Your task to perform on an android device: Clear the shopping cart on walmart. Add razer nari to the cart on walmart Image 0: 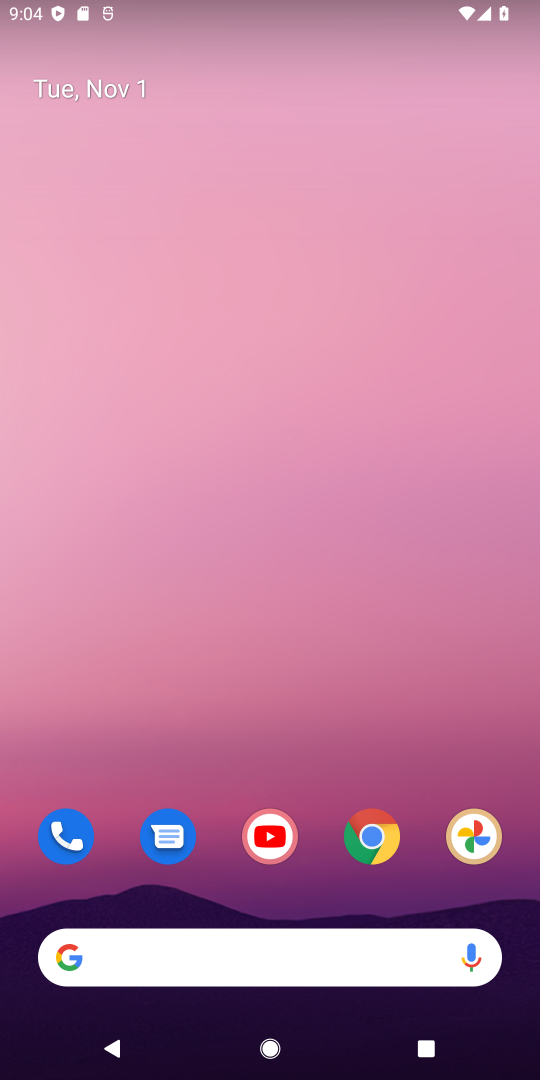
Step 0: click (373, 841)
Your task to perform on an android device: Clear the shopping cart on walmart. Add razer nari to the cart on walmart Image 1: 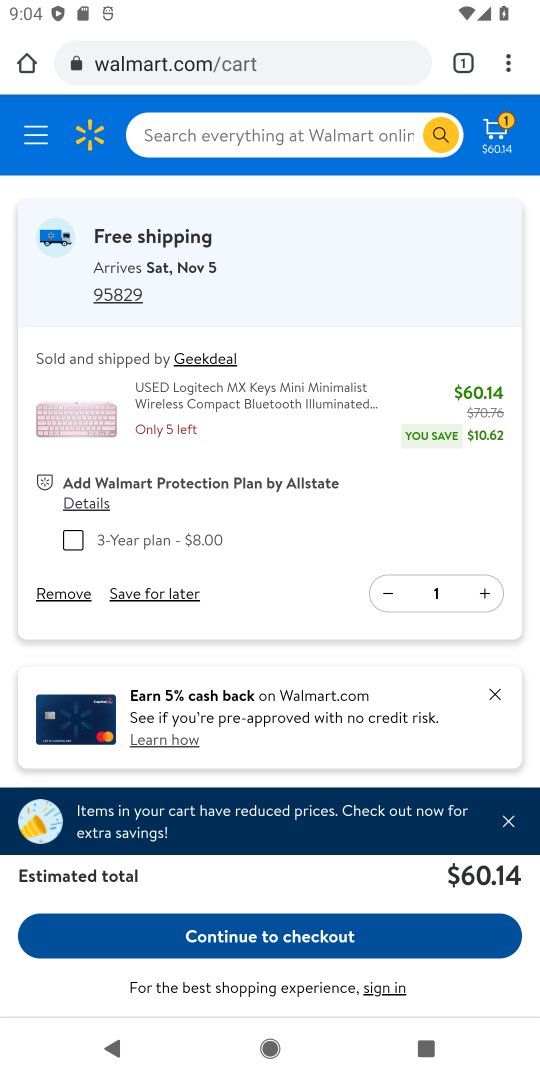
Step 1: click (202, 75)
Your task to perform on an android device: Clear the shopping cart on walmart. Add razer nari to the cart on walmart Image 2: 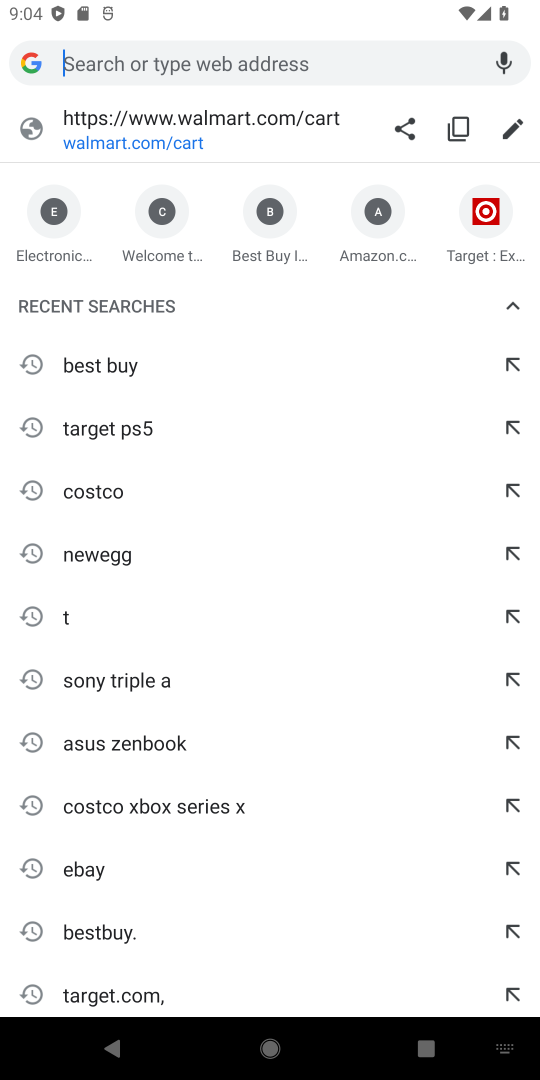
Step 2: type "walmart"
Your task to perform on an android device: Clear the shopping cart on walmart. Add razer nari to the cart on walmart Image 3: 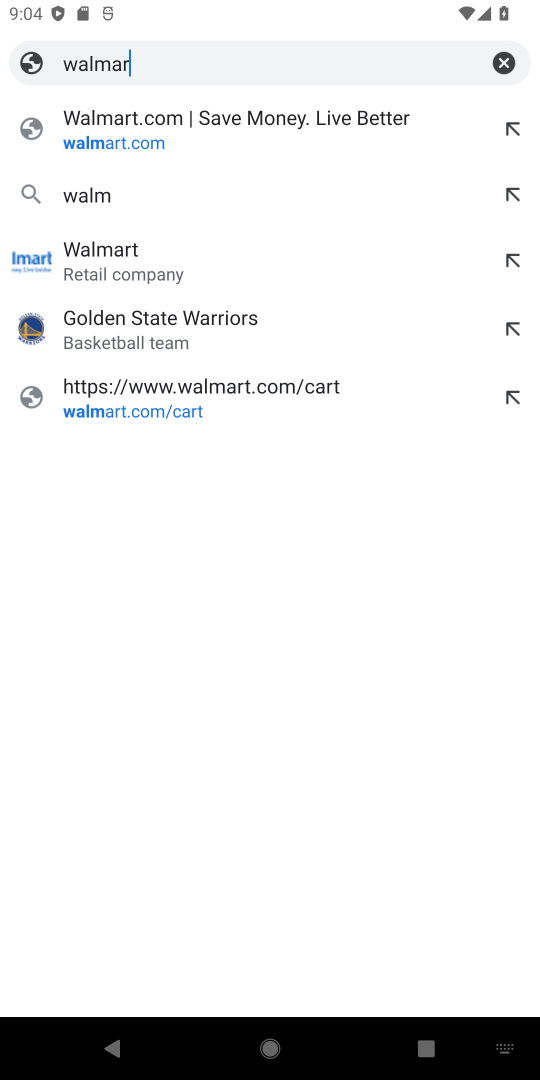
Step 3: type ""
Your task to perform on an android device: Clear the shopping cart on walmart. Add razer nari to the cart on walmart Image 4: 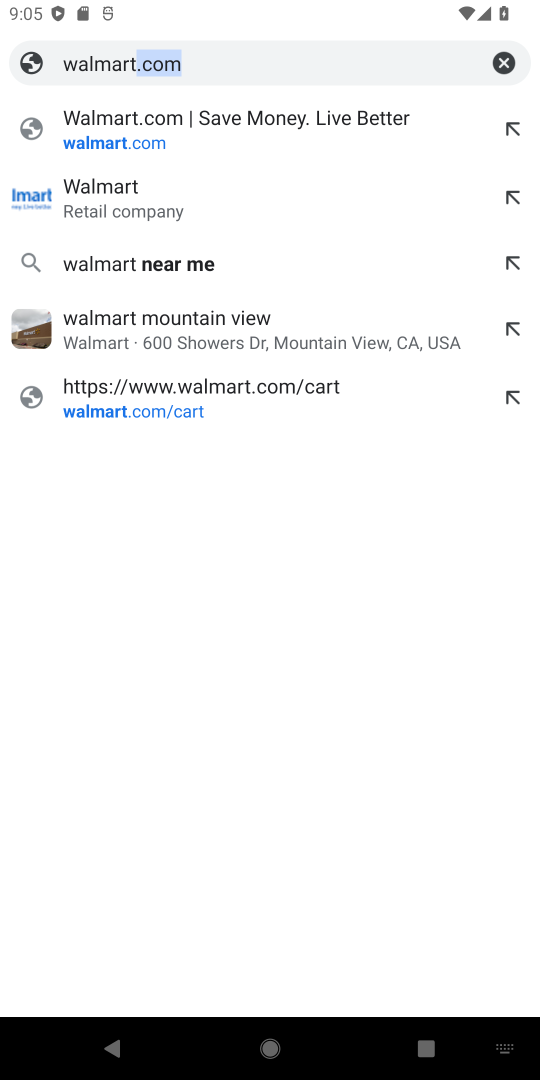
Step 4: press enter
Your task to perform on an android device: Clear the shopping cart on walmart. Add razer nari to the cart on walmart Image 5: 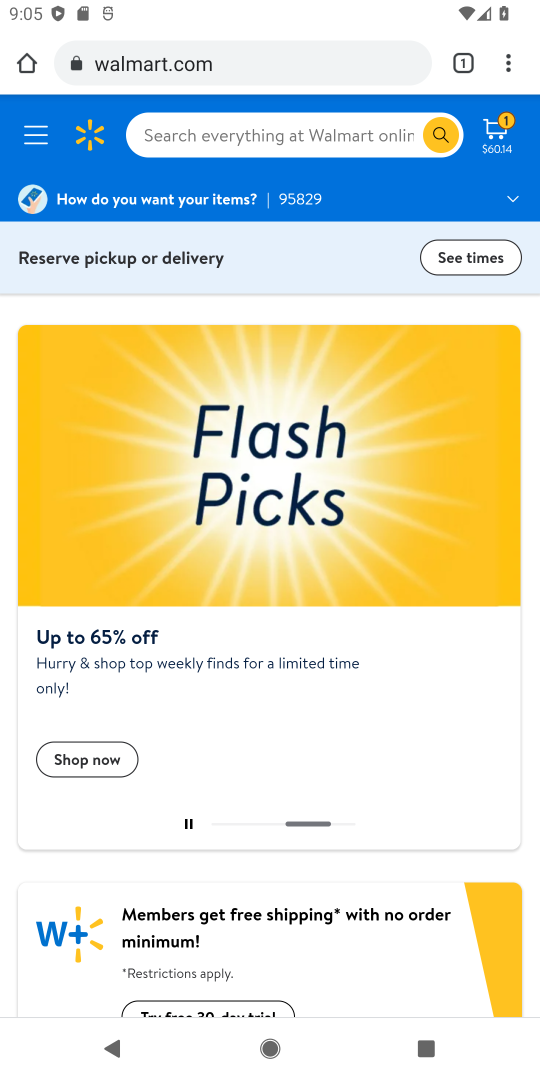
Step 5: click (258, 122)
Your task to perform on an android device: Clear the shopping cart on walmart. Add razer nari to the cart on walmart Image 6: 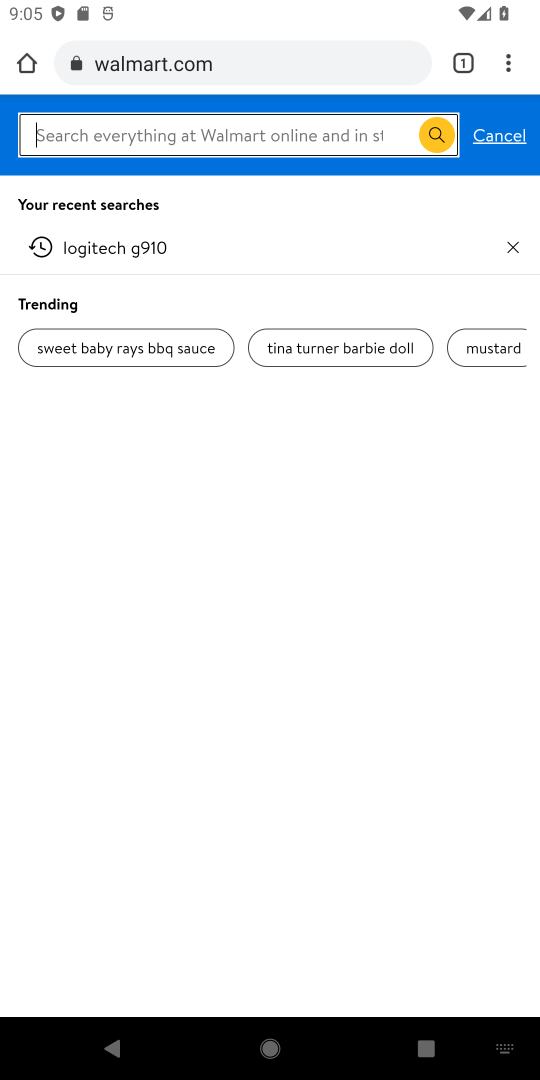
Step 6: type "razer nari "
Your task to perform on an android device: Clear the shopping cart on walmart. Add razer nari to the cart on walmart Image 7: 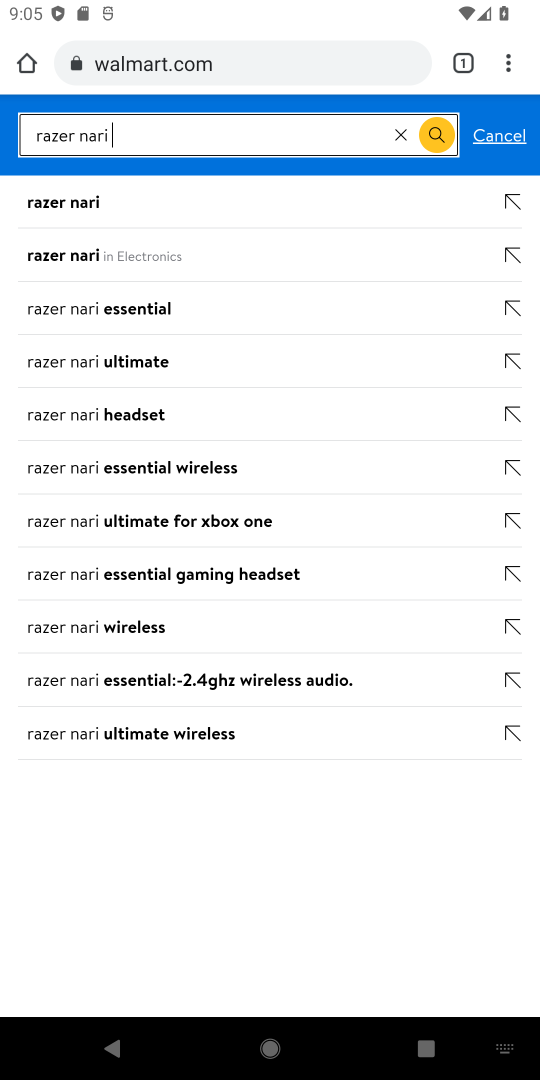
Step 7: click (78, 196)
Your task to perform on an android device: Clear the shopping cart on walmart. Add razer nari to the cart on walmart Image 8: 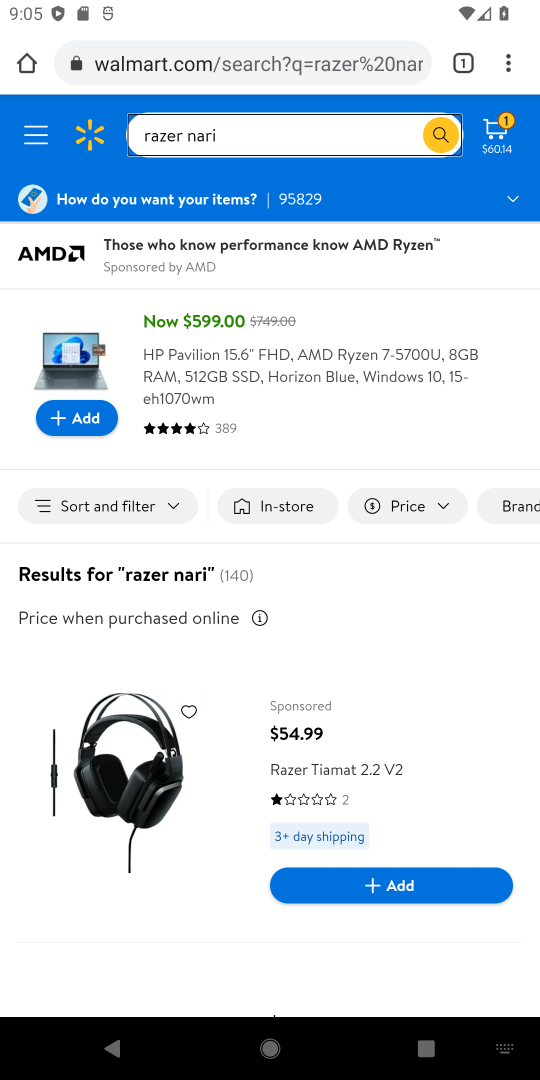
Step 8: drag from (245, 741) to (293, 450)
Your task to perform on an android device: Clear the shopping cart on walmart. Add razer nari to the cart on walmart Image 9: 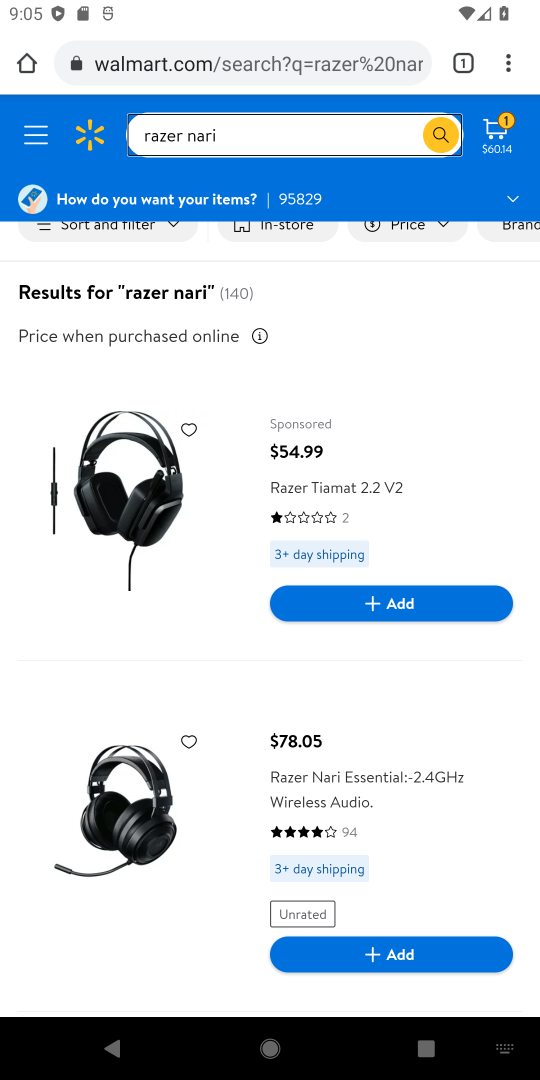
Step 9: click (292, 763)
Your task to perform on an android device: Clear the shopping cart on walmart. Add razer nari to the cart on walmart Image 10: 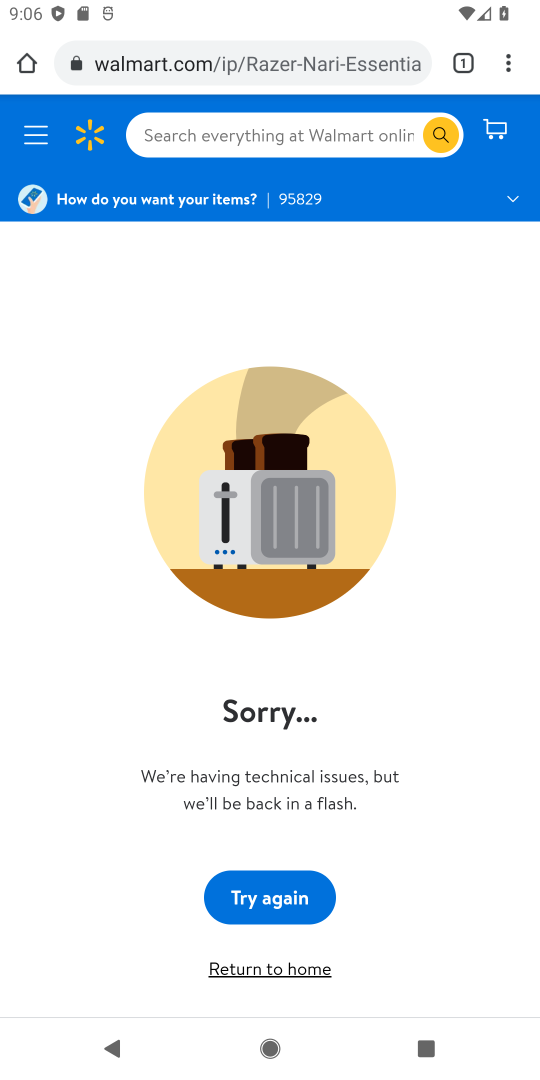
Step 10: click (271, 968)
Your task to perform on an android device: Clear the shopping cart on walmart. Add razer nari to the cart on walmart Image 11: 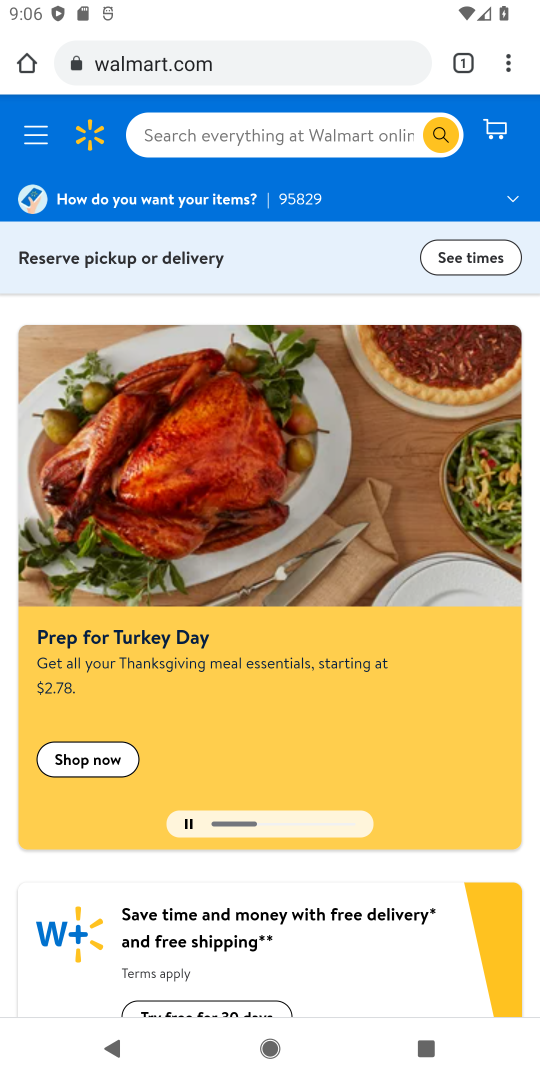
Step 11: drag from (310, 727) to (394, 354)
Your task to perform on an android device: Clear the shopping cart on walmart. Add razer nari to the cart on walmart Image 12: 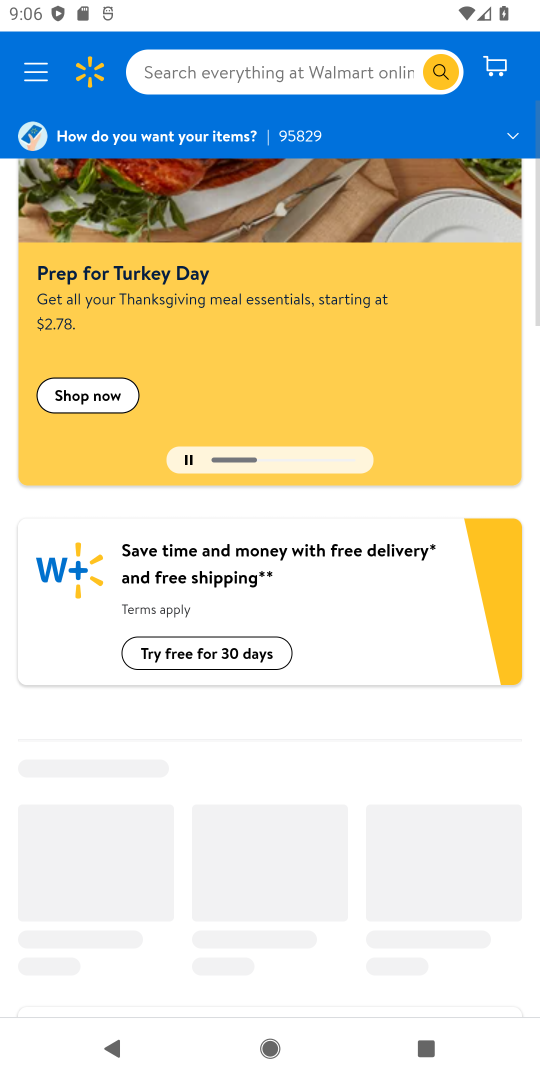
Step 12: drag from (296, 893) to (404, 321)
Your task to perform on an android device: Clear the shopping cart on walmart. Add razer nari to the cart on walmart Image 13: 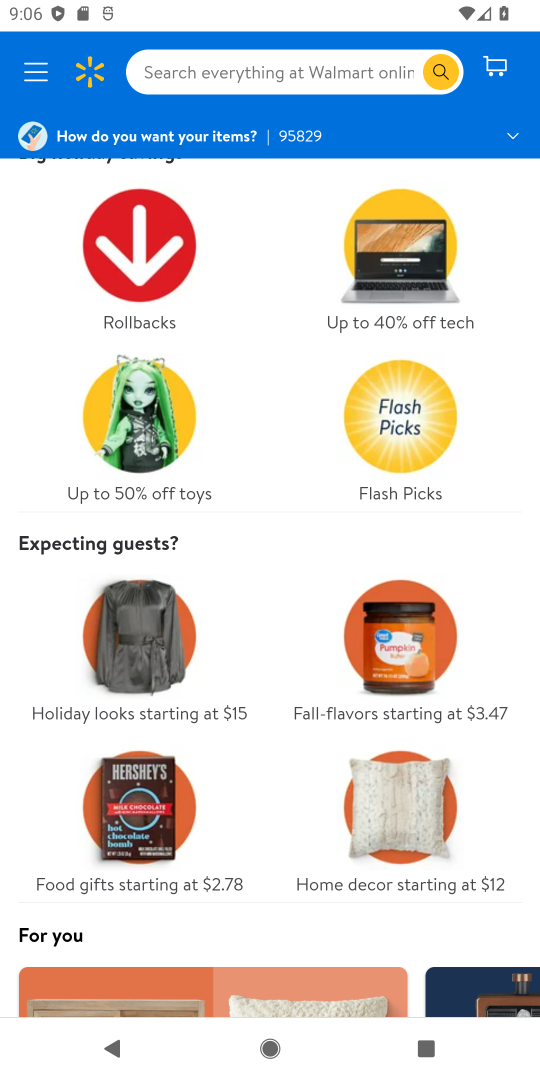
Step 13: press back button
Your task to perform on an android device: Clear the shopping cart on walmart. Add razer nari to the cart on walmart Image 14: 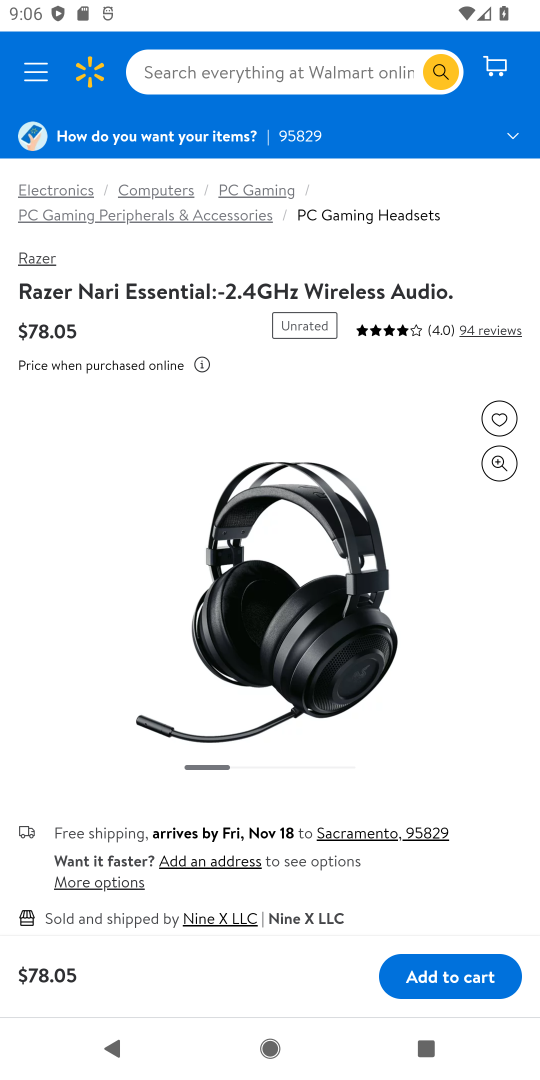
Step 14: click (480, 971)
Your task to perform on an android device: Clear the shopping cart on walmart. Add razer nari to the cart on walmart Image 15: 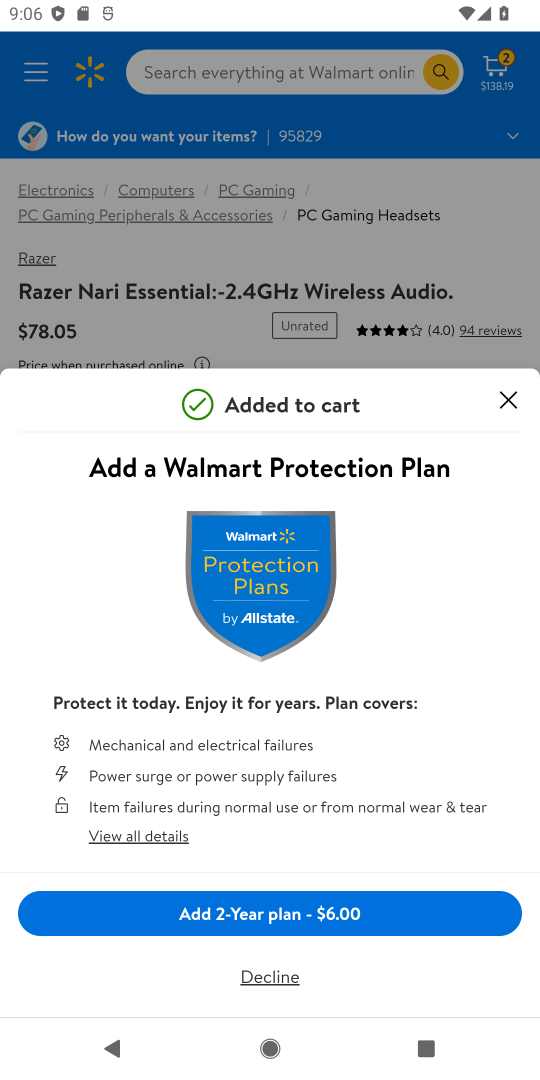
Step 15: click (512, 402)
Your task to perform on an android device: Clear the shopping cart on walmart. Add razer nari to the cart on walmart Image 16: 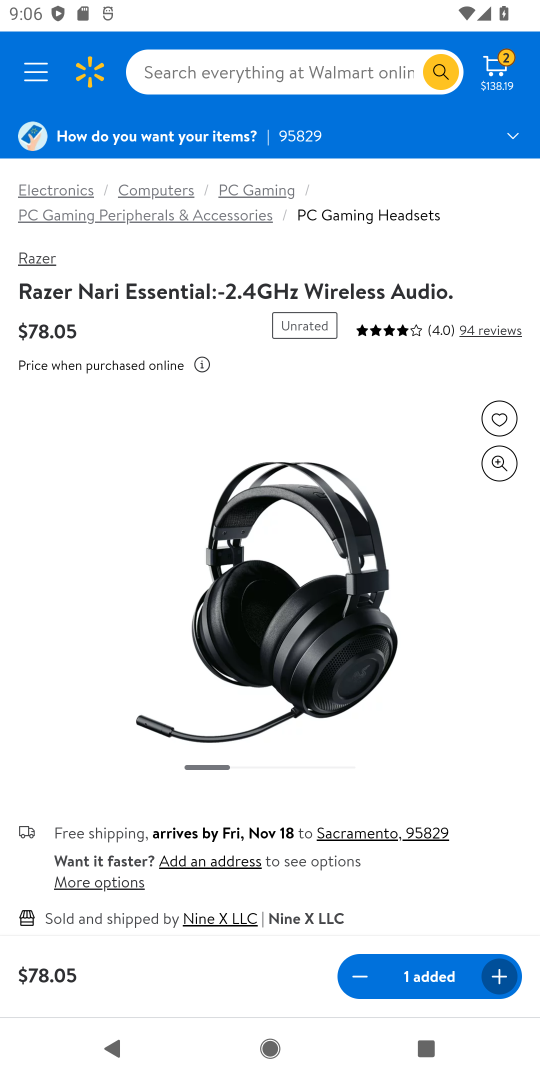
Step 16: click (515, 75)
Your task to perform on an android device: Clear the shopping cart on walmart. Add razer nari to the cart on walmart Image 17: 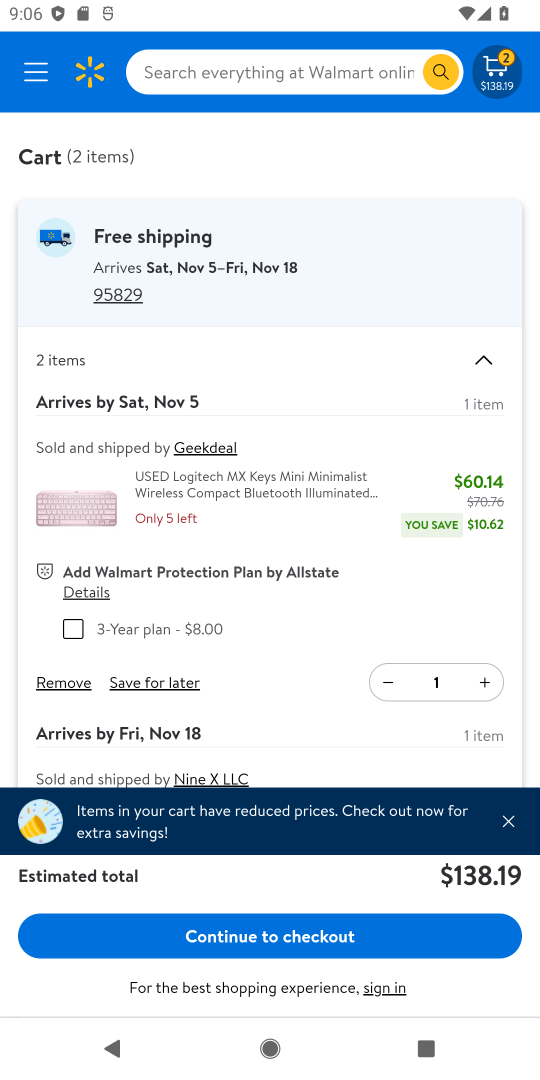
Step 17: click (313, 925)
Your task to perform on an android device: Clear the shopping cart on walmart. Add razer nari to the cart on walmart Image 18: 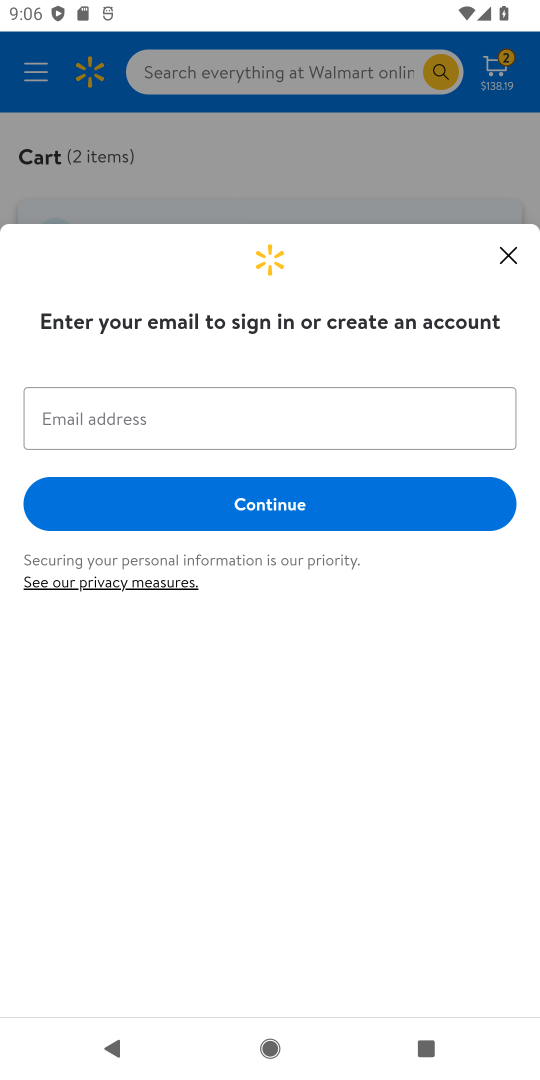
Step 18: click (517, 258)
Your task to perform on an android device: Clear the shopping cart on walmart. Add razer nari to the cart on walmart Image 19: 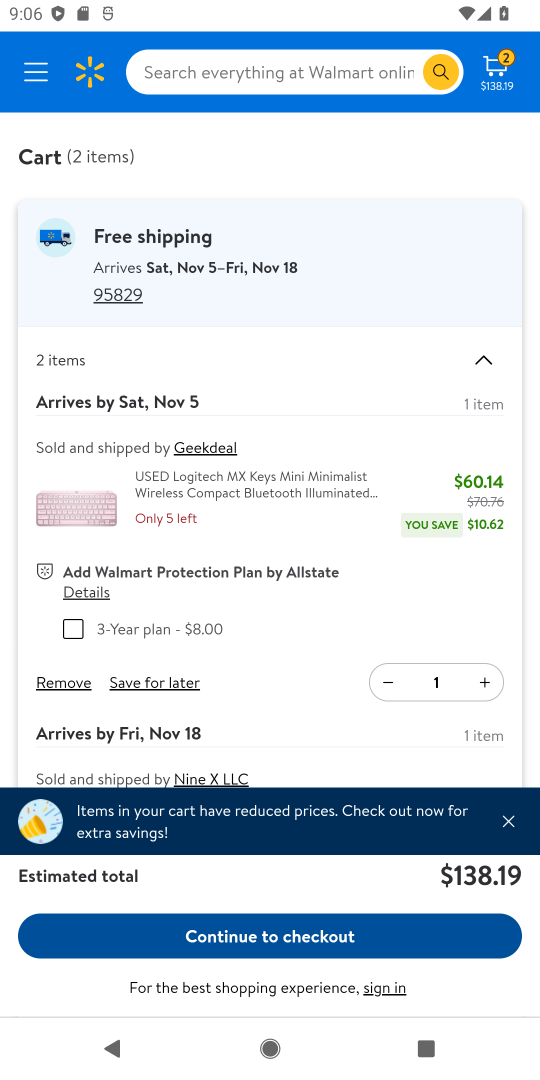
Step 19: click (306, 940)
Your task to perform on an android device: Clear the shopping cart on walmart. Add razer nari to the cart on walmart Image 20: 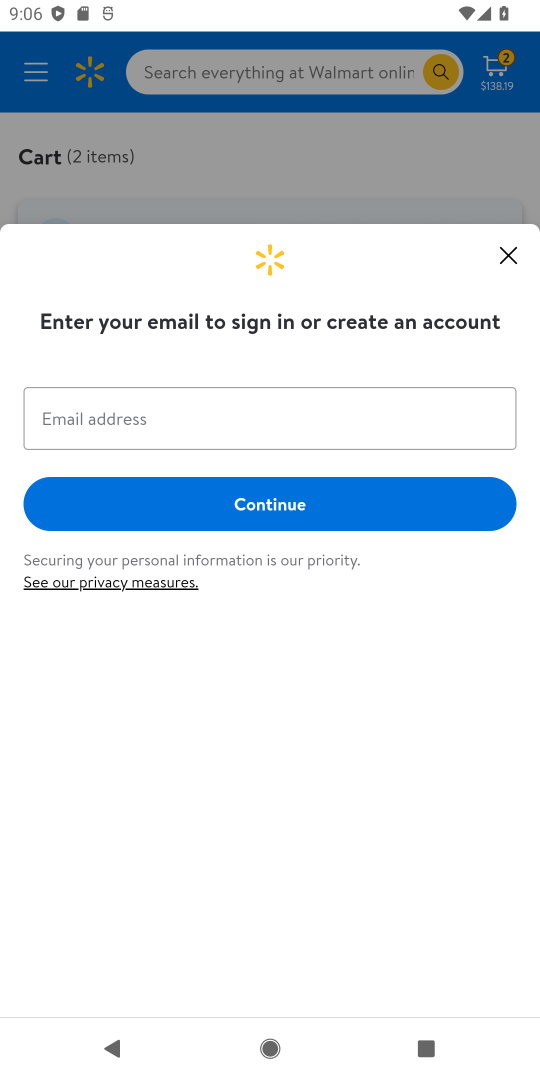
Step 20: click (503, 254)
Your task to perform on an android device: Clear the shopping cart on walmart. Add razer nari to the cart on walmart Image 21: 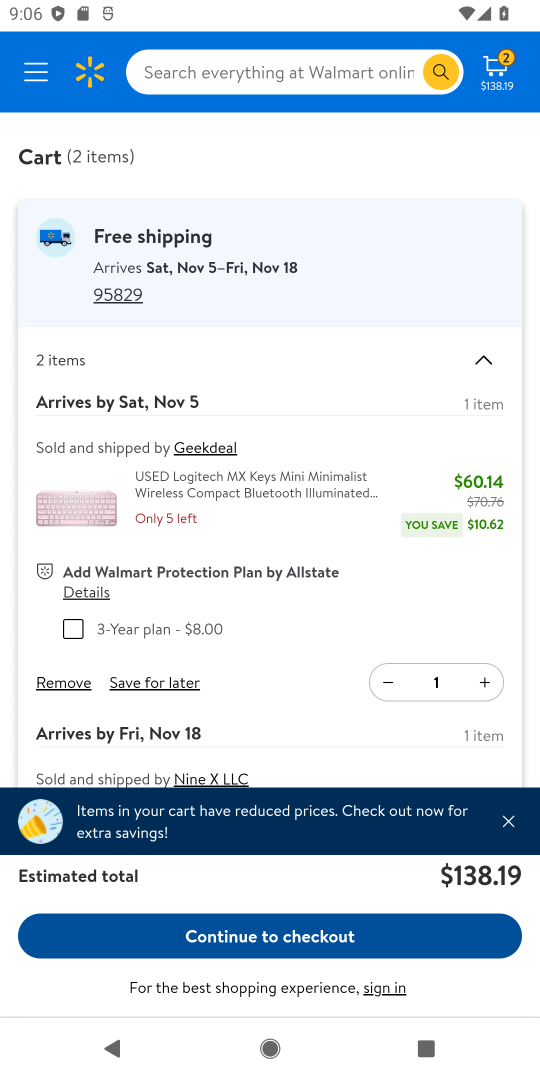
Step 21: click (400, 949)
Your task to perform on an android device: Clear the shopping cart on walmart. Add razer nari to the cart on walmart Image 22: 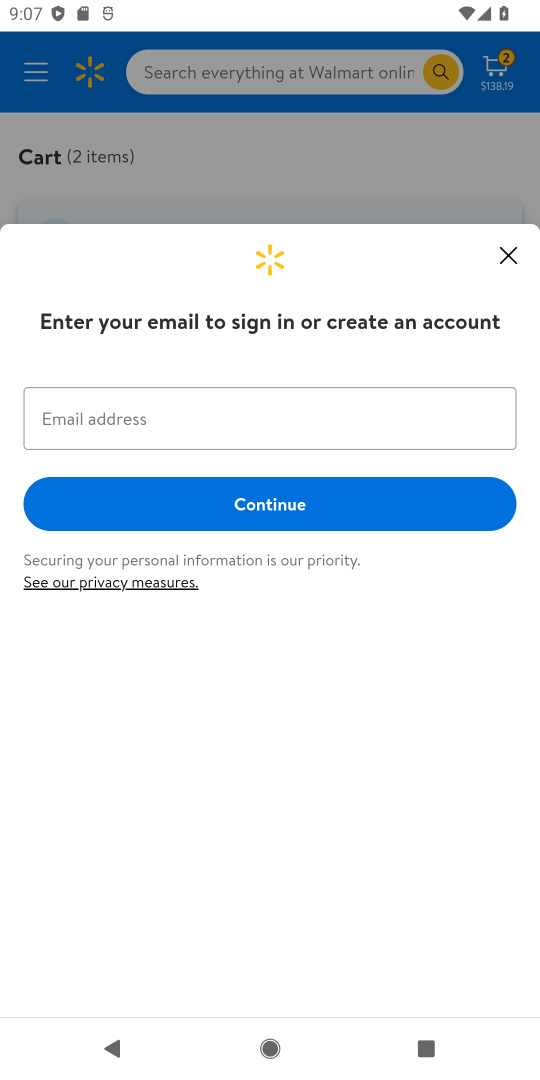
Step 22: task complete